Your task to perform on an android device: Toggle the flashlight Image 0: 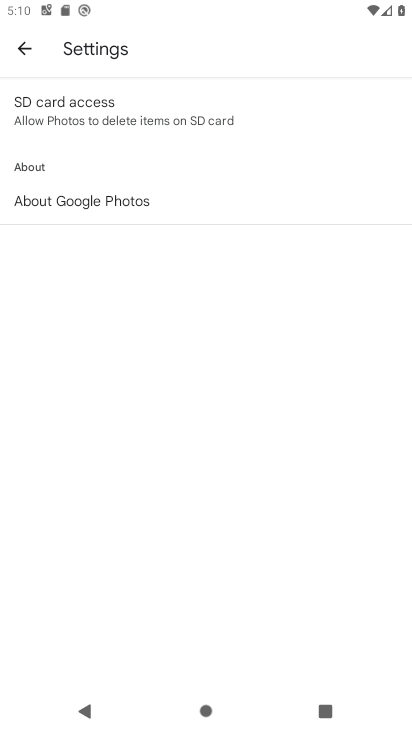
Step 0: press home button
Your task to perform on an android device: Toggle the flashlight Image 1: 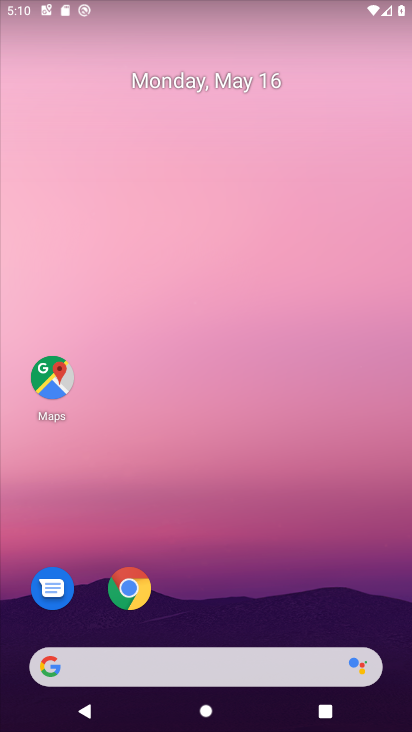
Step 1: task complete